Your task to perform on an android device: turn on the 12-hour format for clock Image 0: 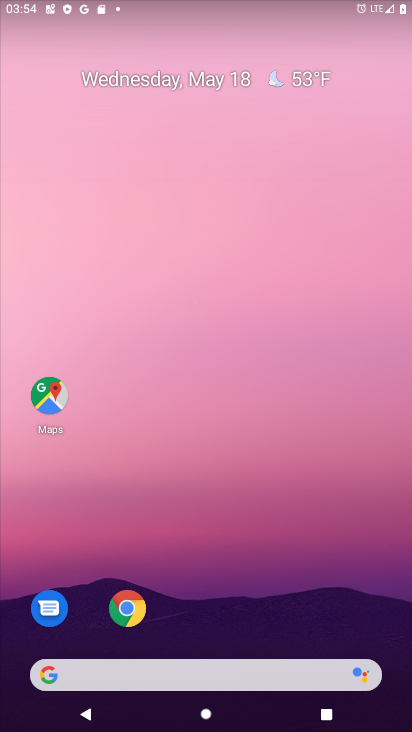
Step 0: drag from (293, 623) to (280, 9)
Your task to perform on an android device: turn on the 12-hour format for clock Image 1: 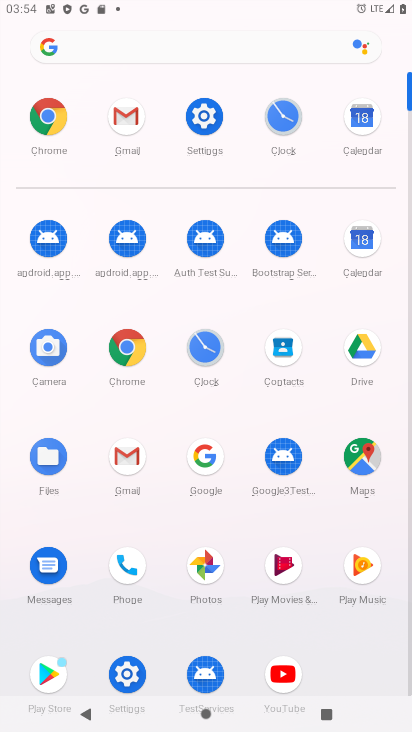
Step 1: click (278, 113)
Your task to perform on an android device: turn on the 12-hour format for clock Image 2: 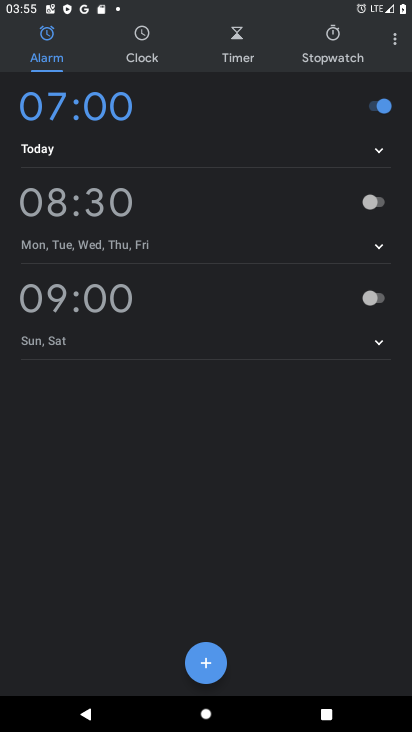
Step 2: click (391, 41)
Your task to perform on an android device: turn on the 12-hour format for clock Image 3: 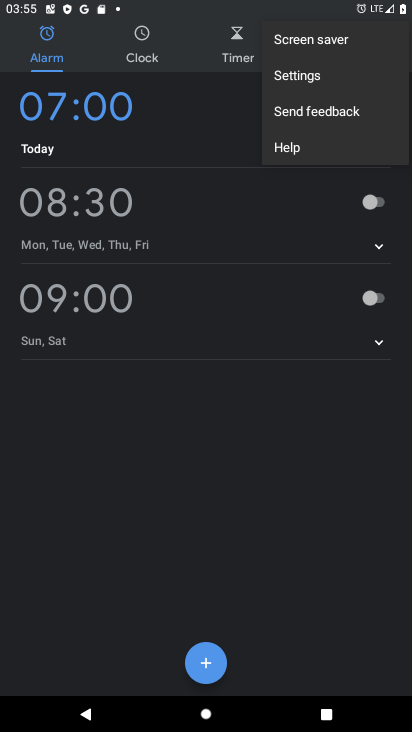
Step 3: click (294, 76)
Your task to perform on an android device: turn on the 12-hour format for clock Image 4: 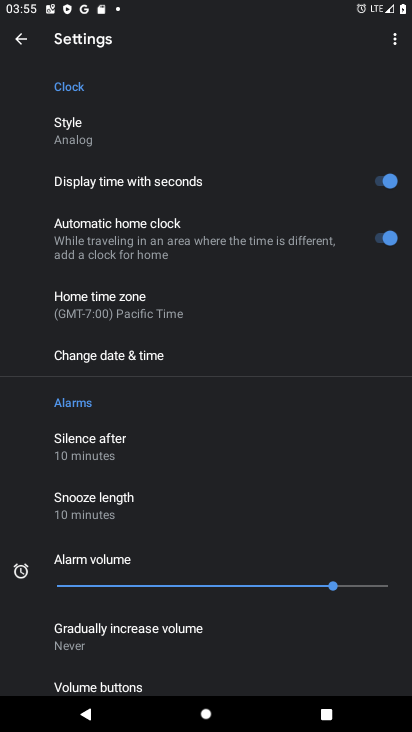
Step 4: click (98, 354)
Your task to perform on an android device: turn on the 12-hour format for clock Image 5: 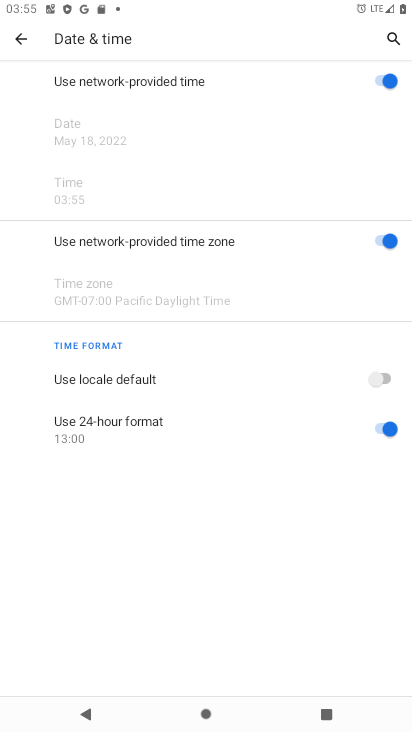
Step 5: click (401, 432)
Your task to perform on an android device: turn on the 12-hour format for clock Image 6: 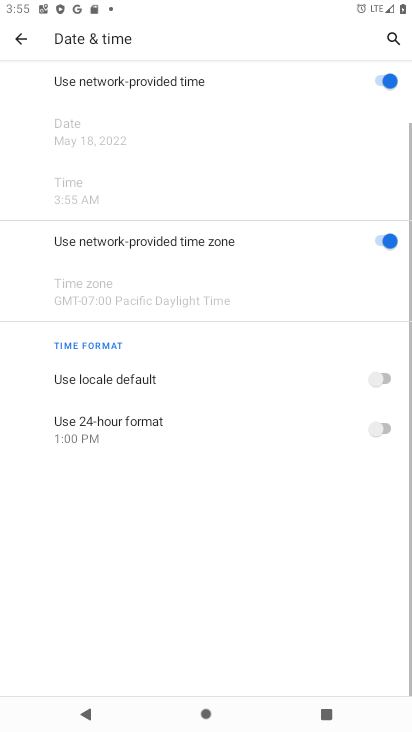
Step 6: click (377, 379)
Your task to perform on an android device: turn on the 12-hour format for clock Image 7: 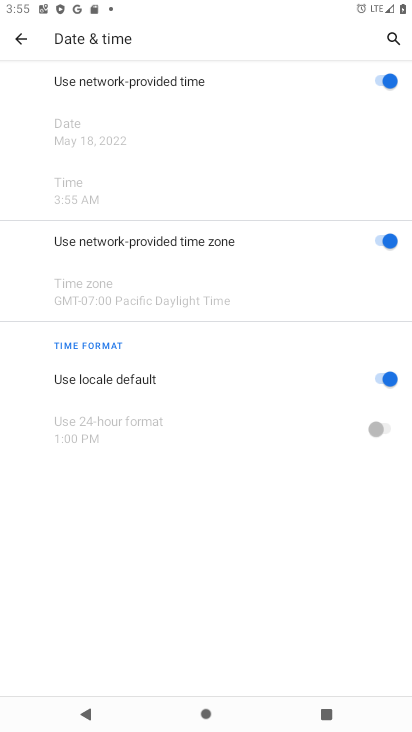
Step 7: task complete